Your task to perform on an android device: open app "Flipkart Online Shopping App" (install if not already installed) Image 0: 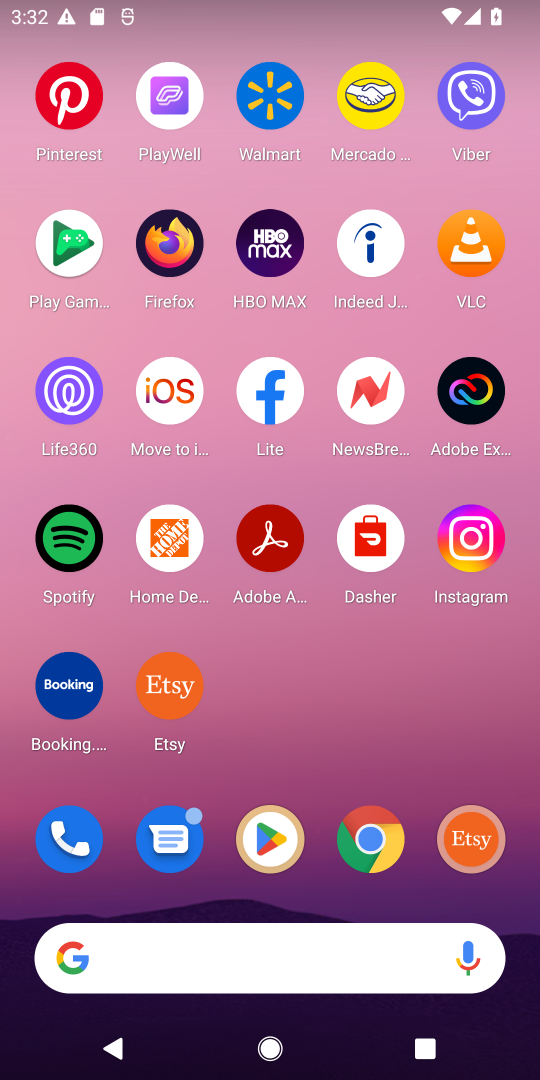
Step 0: click (273, 859)
Your task to perform on an android device: open app "Flipkart Online Shopping App" (install if not already installed) Image 1: 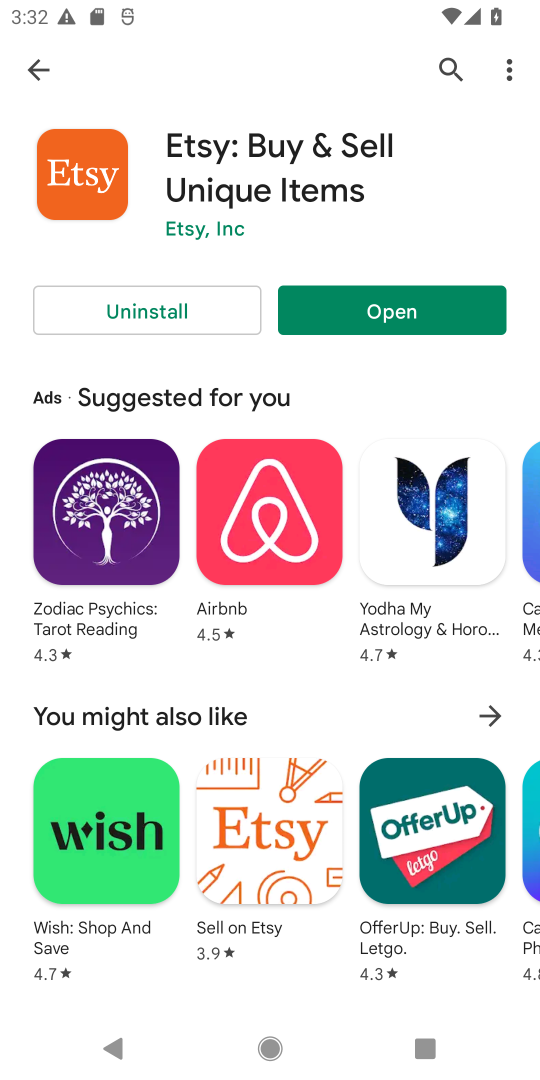
Step 1: click (25, 70)
Your task to perform on an android device: open app "Flipkart Online Shopping App" (install if not already installed) Image 2: 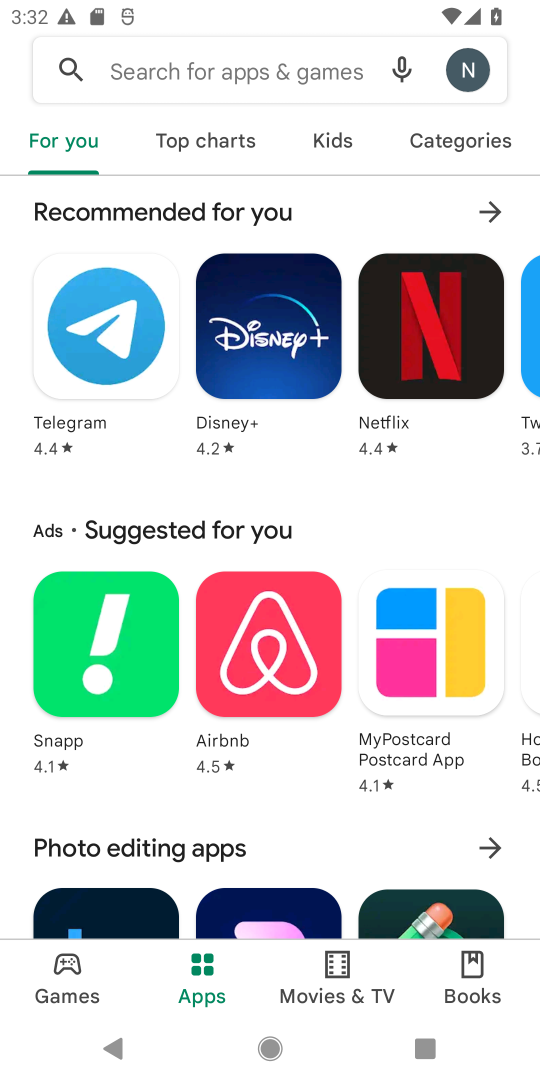
Step 2: click (139, 85)
Your task to perform on an android device: open app "Flipkart Online Shopping App" (install if not already installed) Image 3: 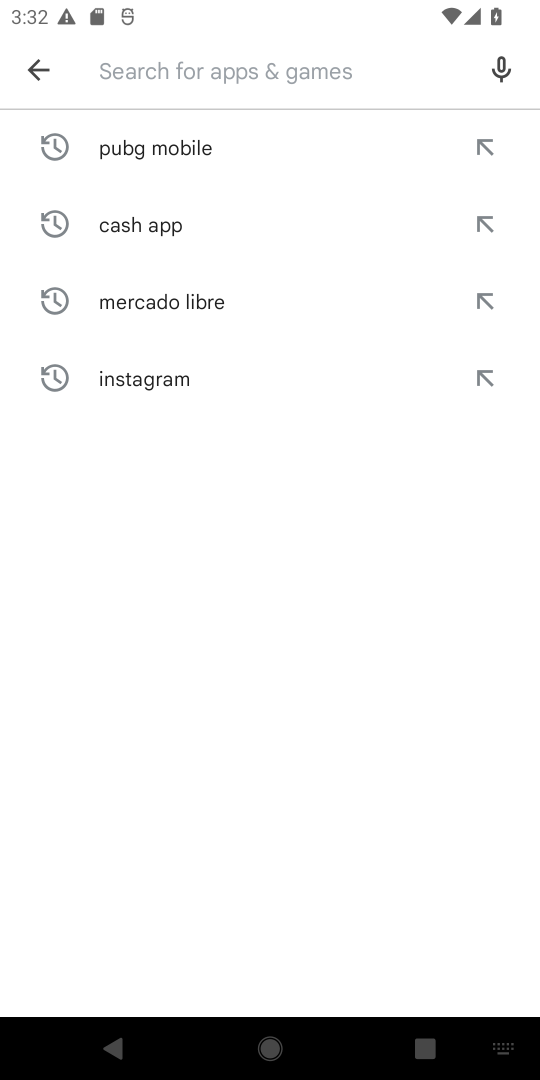
Step 3: type "Flipkart Online Shopping App"
Your task to perform on an android device: open app "Flipkart Online Shopping App" (install if not already installed) Image 4: 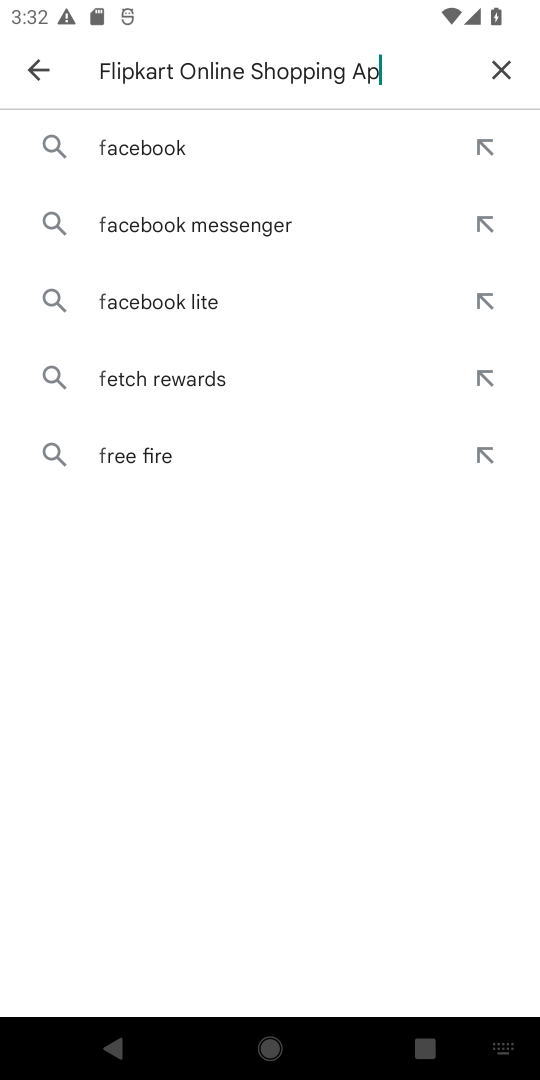
Step 4: type ""
Your task to perform on an android device: open app "Flipkart Online Shopping App" (install if not already installed) Image 5: 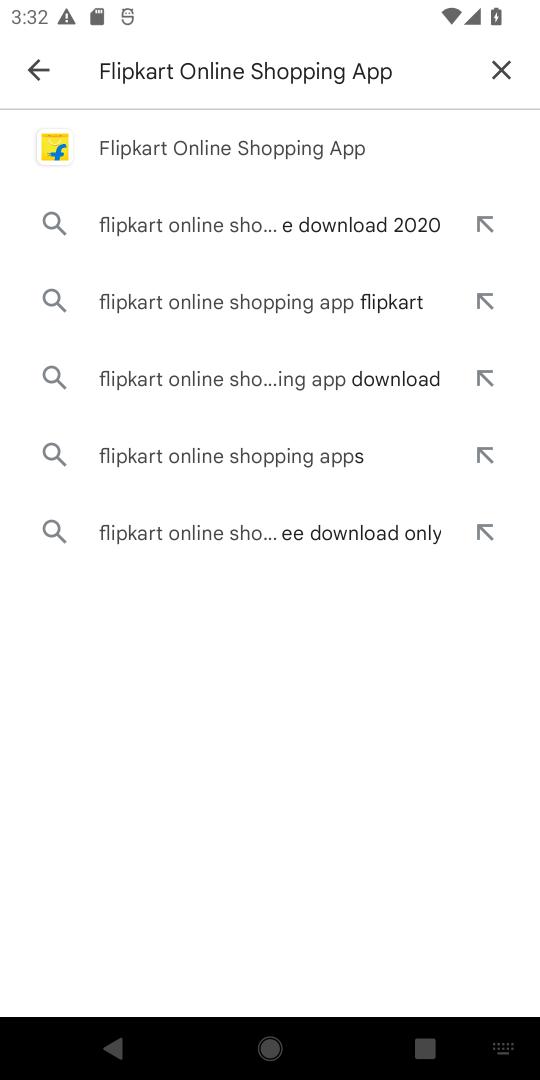
Step 5: click (185, 141)
Your task to perform on an android device: open app "Flipkart Online Shopping App" (install if not already installed) Image 6: 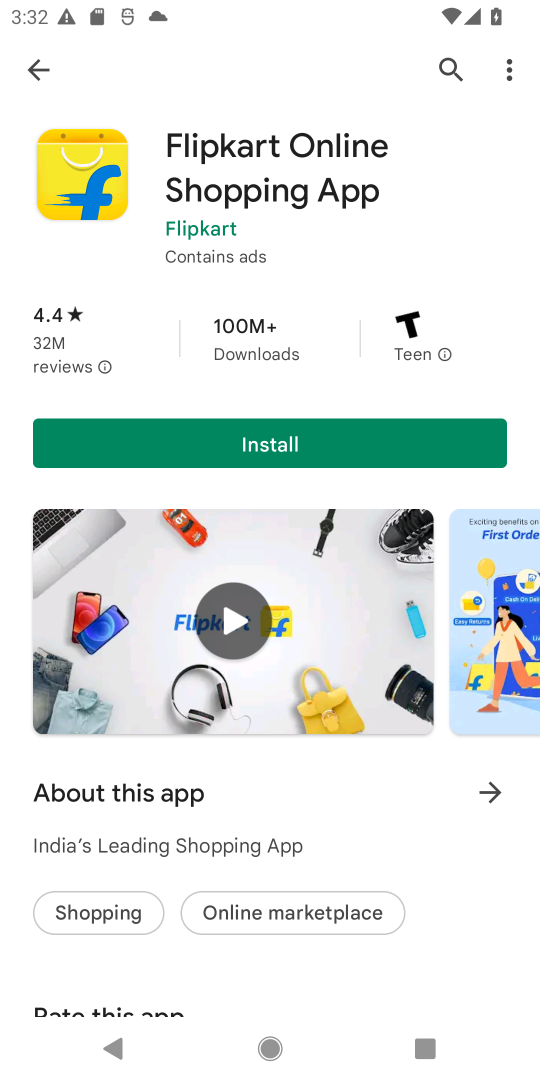
Step 6: click (90, 431)
Your task to perform on an android device: open app "Flipkart Online Shopping App" (install if not already installed) Image 7: 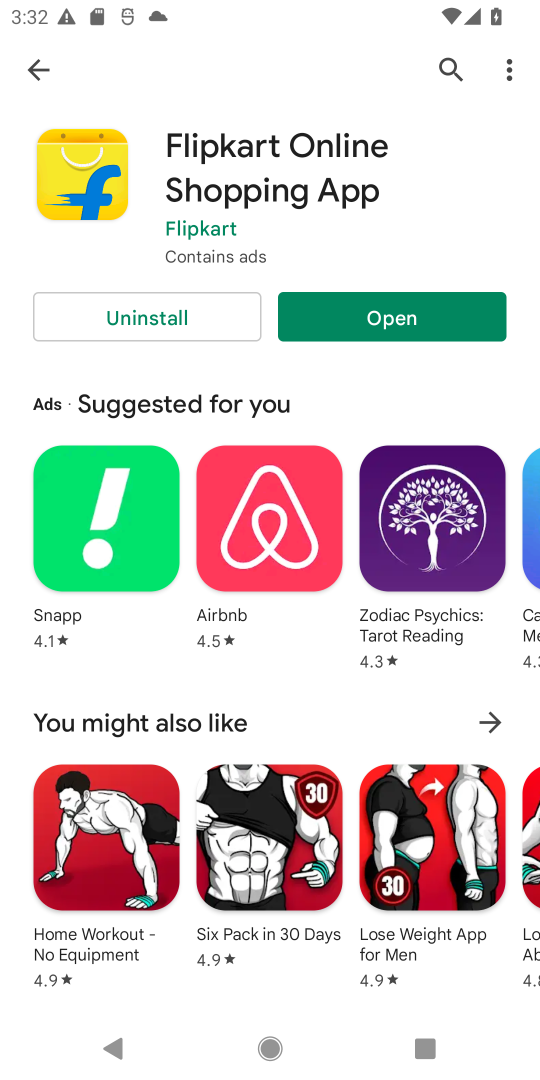
Step 7: click (390, 320)
Your task to perform on an android device: open app "Flipkart Online Shopping App" (install if not already installed) Image 8: 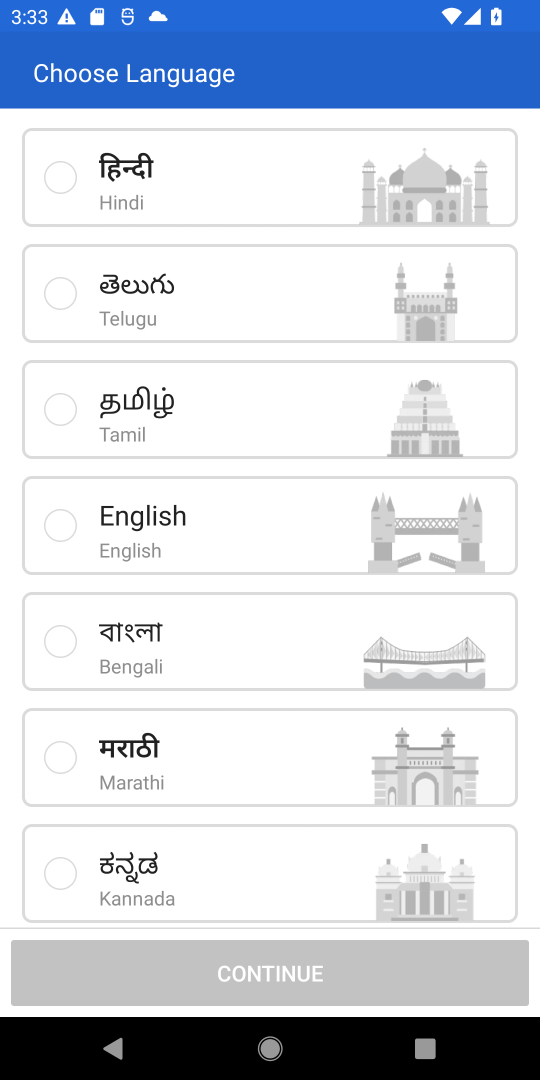
Step 8: task complete